Your task to perform on an android device: turn on data saver in the chrome app Image 0: 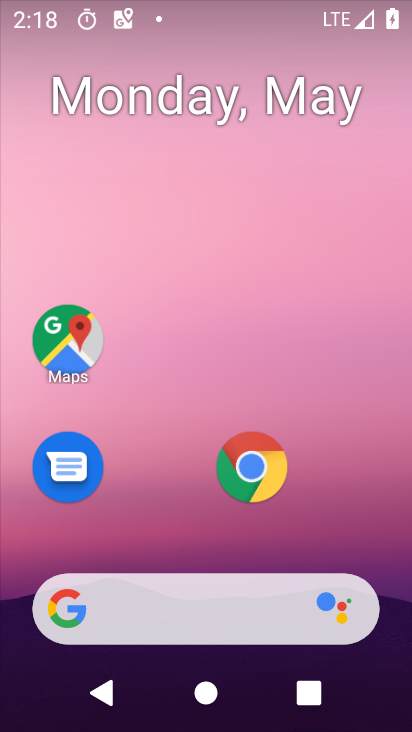
Step 0: drag from (181, 572) to (254, 212)
Your task to perform on an android device: turn on data saver in the chrome app Image 1: 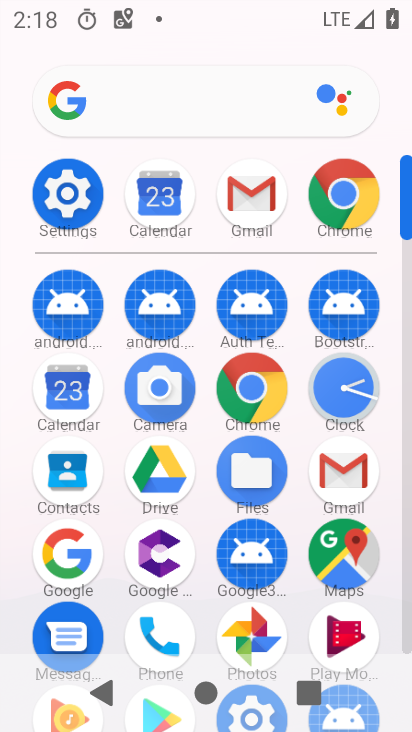
Step 1: click (347, 184)
Your task to perform on an android device: turn on data saver in the chrome app Image 2: 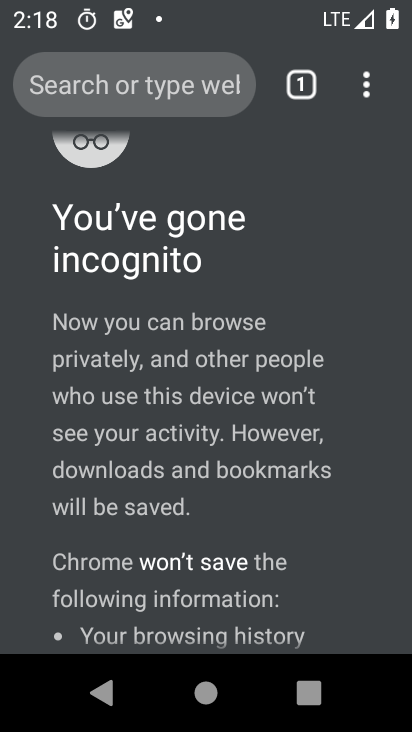
Step 2: click (375, 78)
Your task to perform on an android device: turn on data saver in the chrome app Image 3: 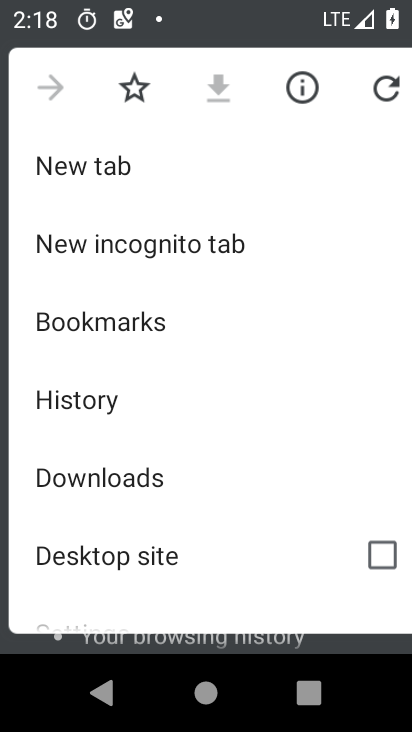
Step 3: drag from (93, 546) to (219, 133)
Your task to perform on an android device: turn on data saver in the chrome app Image 4: 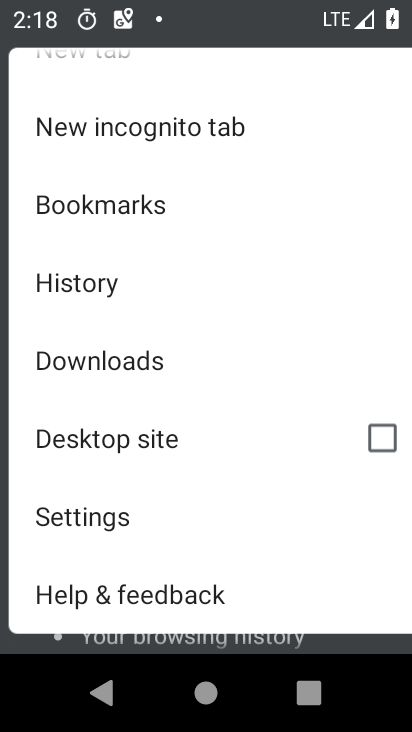
Step 4: click (97, 516)
Your task to perform on an android device: turn on data saver in the chrome app Image 5: 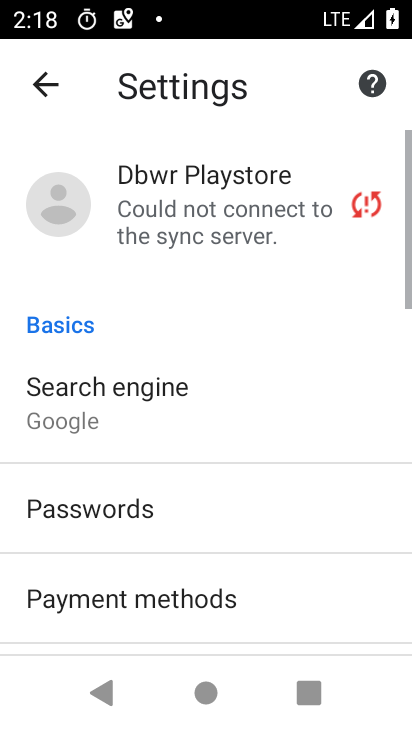
Step 5: drag from (109, 498) to (218, 58)
Your task to perform on an android device: turn on data saver in the chrome app Image 6: 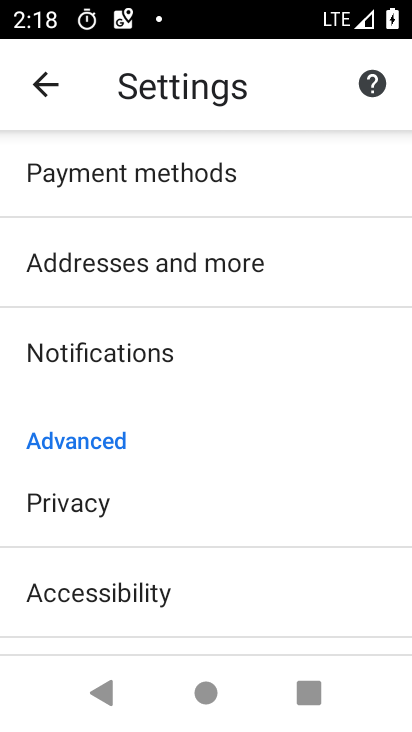
Step 6: drag from (170, 563) to (285, 33)
Your task to perform on an android device: turn on data saver in the chrome app Image 7: 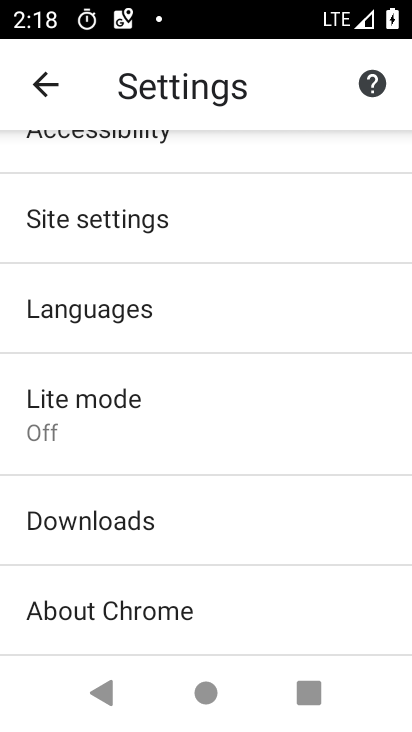
Step 7: click (132, 425)
Your task to perform on an android device: turn on data saver in the chrome app Image 8: 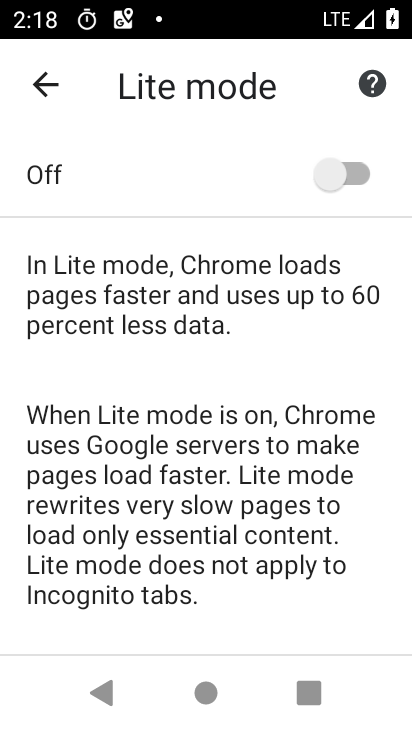
Step 8: drag from (218, 557) to (253, 294)
Your task to perform on an android device: turn on data saver in the chrome app Image 9: 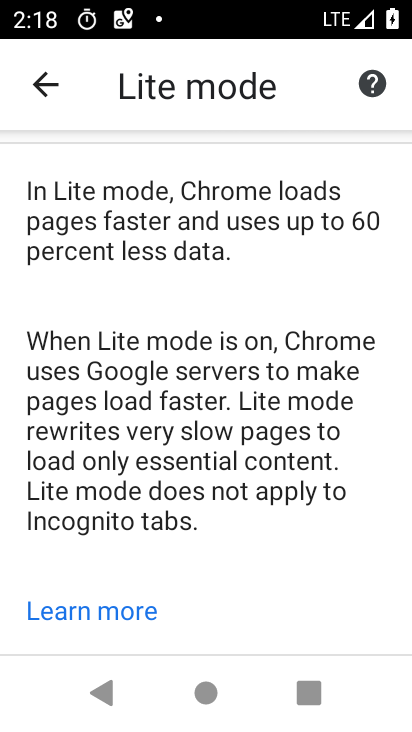
Step 9: drag from (249, 198) to (281, 701)
Your task to perform on an android device: turn on data saver in the chrome app Image 10: 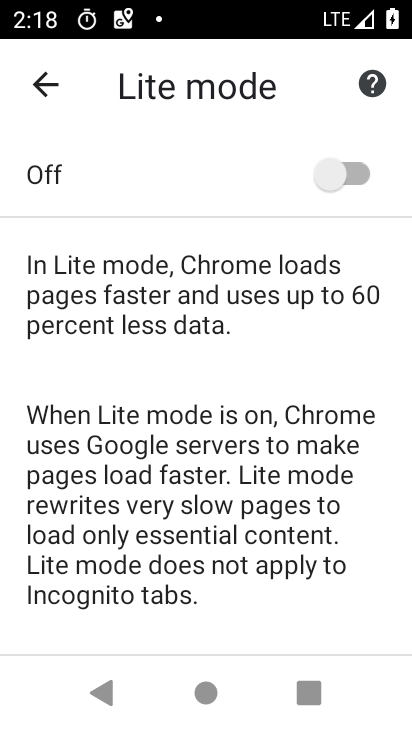
Step 10: click (360, 179)
Your task to perform on an android device: turn on data saver in the chrome app Image 11: 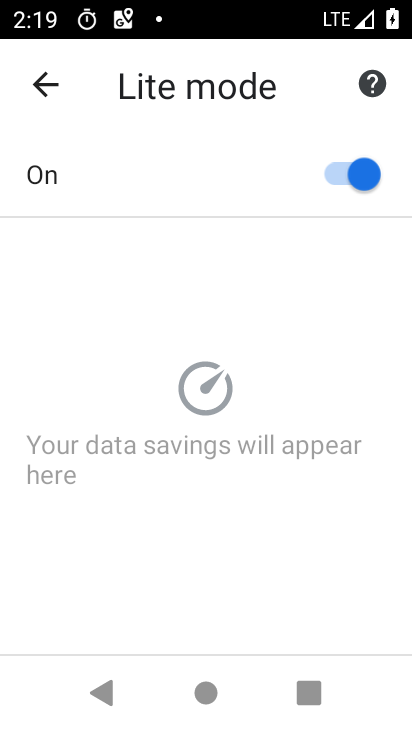
Step 11: task complete